Your task to perform on an android device: turn off javascript in the chrome app Image 0: 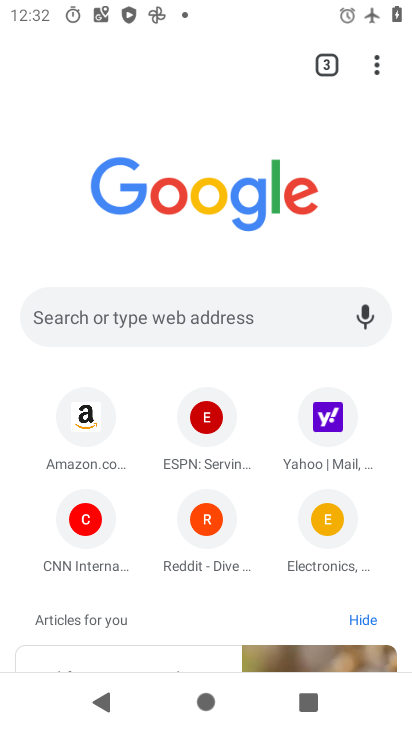
Step 0: click (373, 69)
Your task to perform on an android device: turn off javascript in the chrome app Image 1: 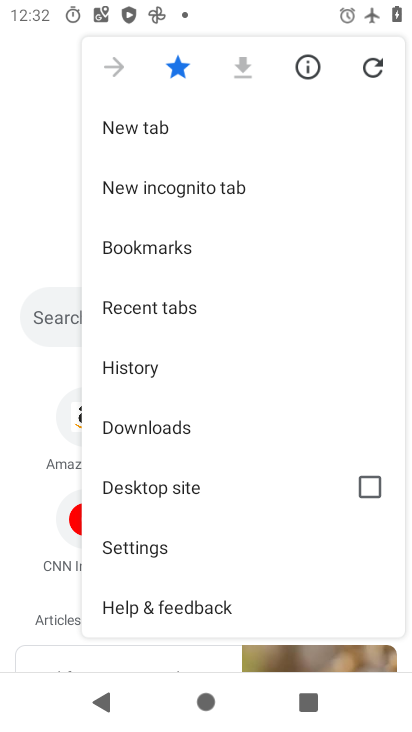
Step 1: click (210, 554)
Your task to perform on an android device: turn off javascript in the chrome app Image 2: 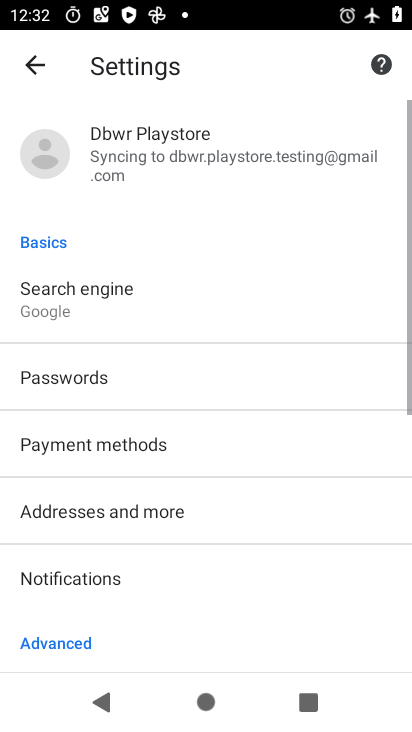
Step 2: drag from (283, 554) to (328, 132)
Your task to perform on an android device: turn off javascript in the chrome app Image 3: 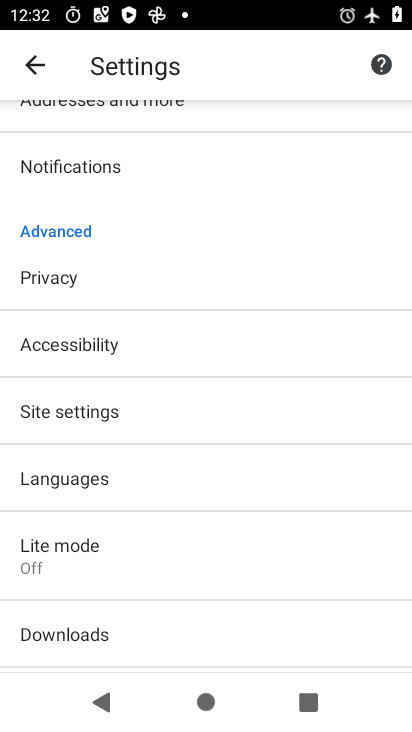
Step 3: drag from (250, 555) to (250, 189)
Your task to perform on an android device: turn off javascript in the chrome app Image 4: 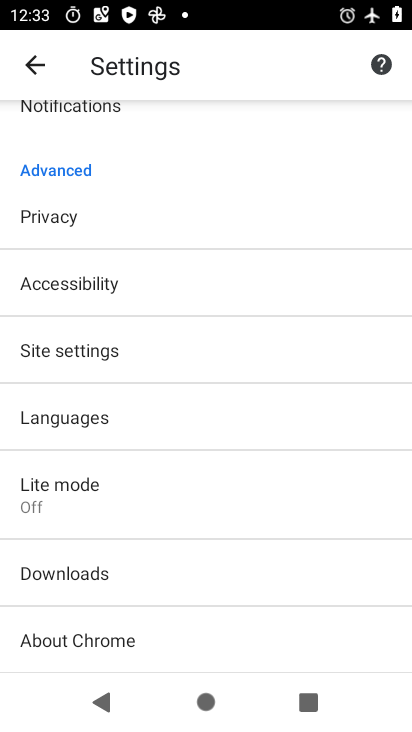
Step 4: click (154, 363)
Your task to perform on an android device: turn off javascript in the chrome app Image 5: 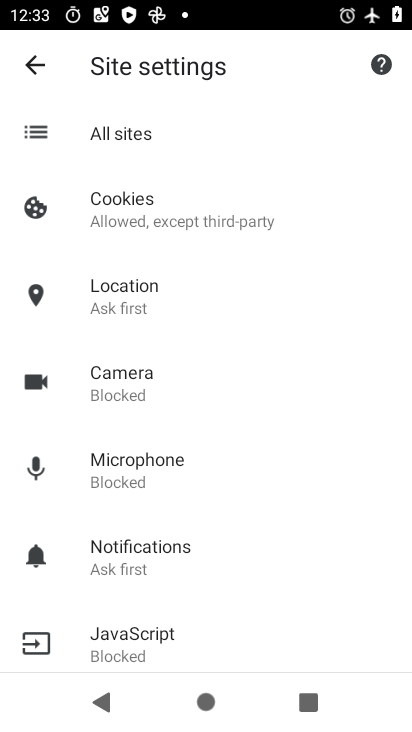
Step 5: click (205, 646)
Your task to perform on an android device: turn off javascript in the chrome app Image 6: 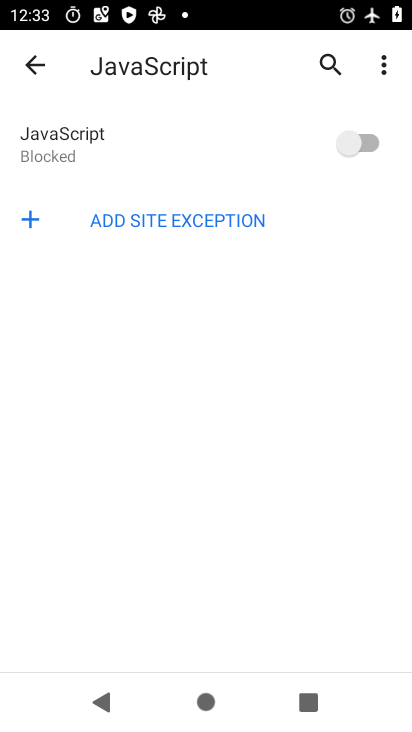
Step 6: task complete